Your task to perform on an android device: change timer sound Image 0: 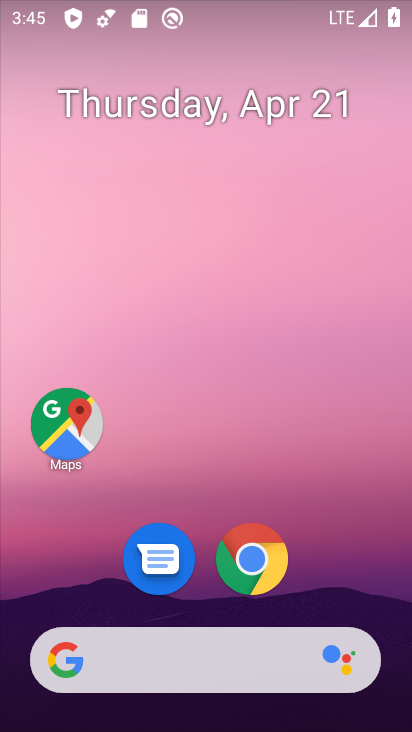
Step 0: drag from (199, 624) to (240, 181)
Your task to perform on an android device: change timer sound Image 1: 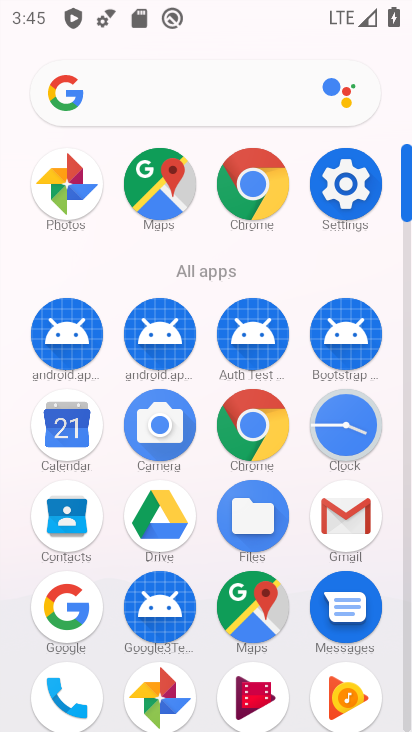
Step 1: click (376, 456)
Your task to perform on an android device: change timer sound Image 2: 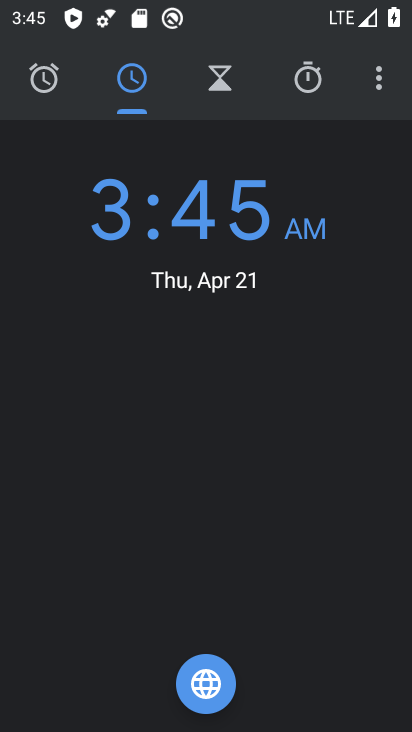
Step 2: click (381, 85)
Your task to perform on an android device: change timer sound Image 3: 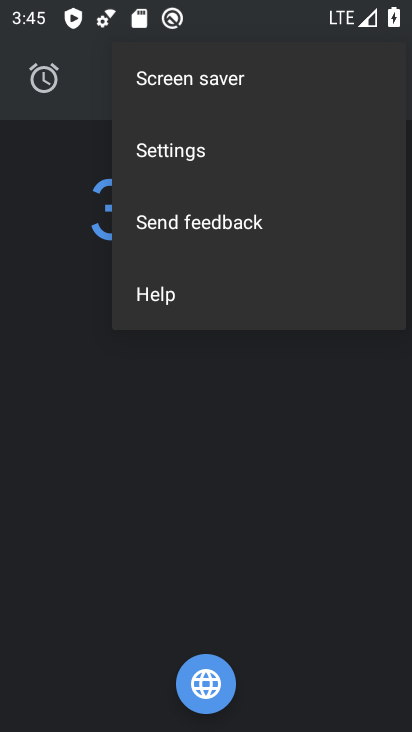
Step 3: click (189, 137)
Your task to perform on an android device: change timer sound Image 4: 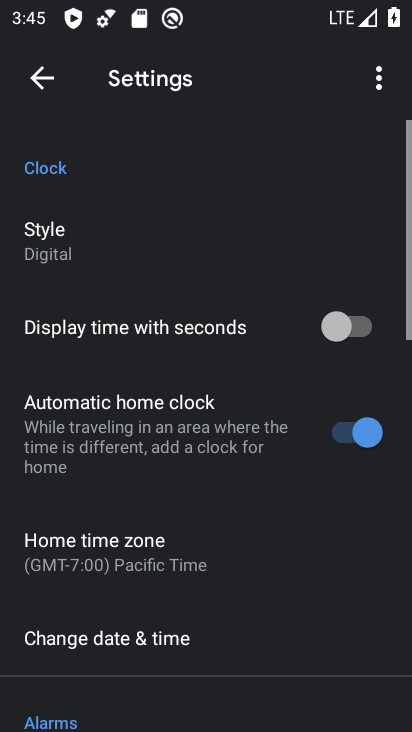
Step 4: drag from (145, 633) to (210, 145)
Your task to perform on an android device: change timer sound Image 5: 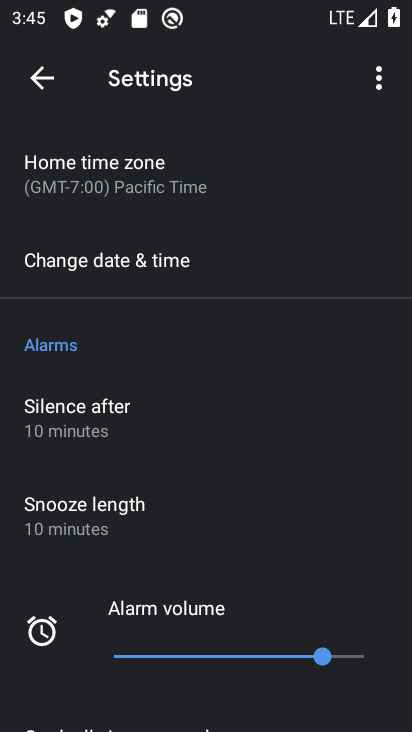
Step 5: drag from (146, 663) to (128, 352)
Your task to perform on an android device: change timer sound Image 6: 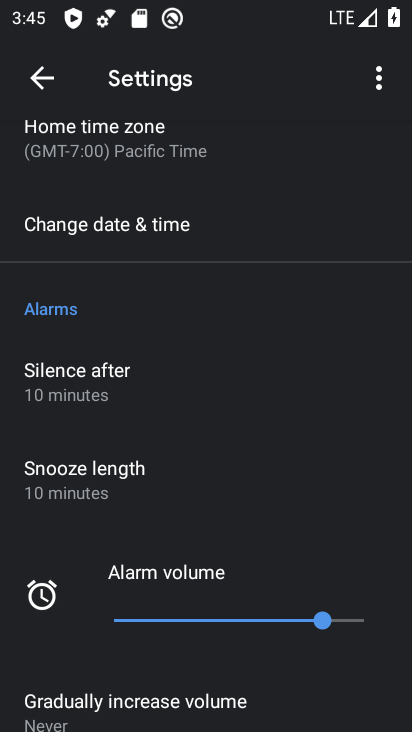
Step 6: drag from (62, 701) to (90, 358)
Your task to perform on an android device: change timer sound Image 7: 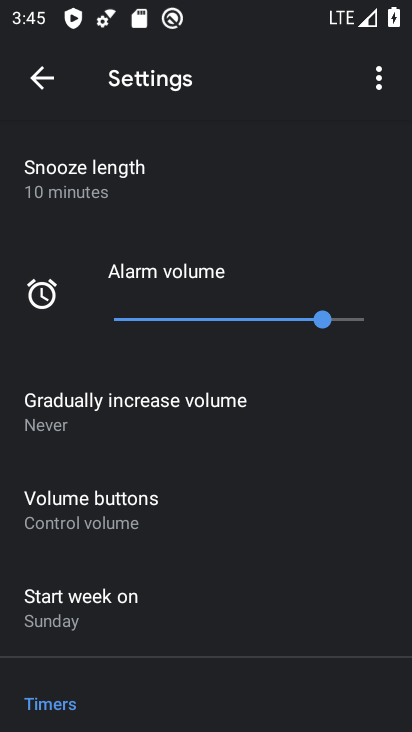
Step 7: drag from (71, 613) to (115, 226)
Your task to perform on an android device: change timer sound Image 8: 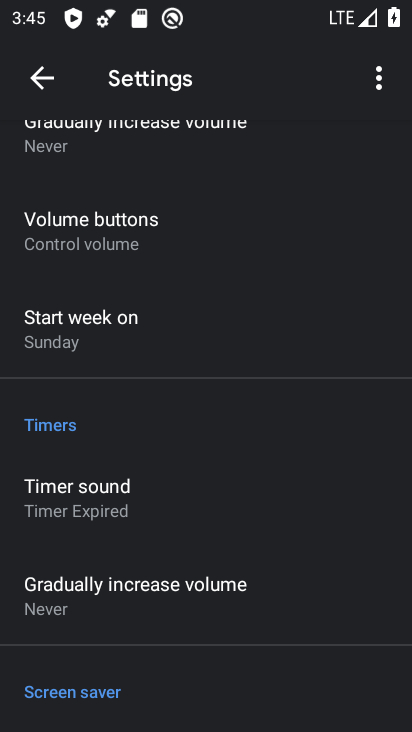
Step 8: click (100, 509)
Your task to perform on an android device: change timer sound Image 9: 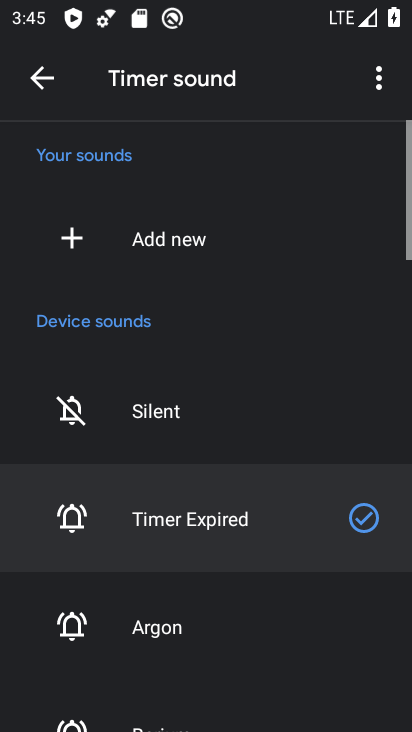
Step 9: click (132, 630)
Your task to perform on an android device: change timer sound Image 10: 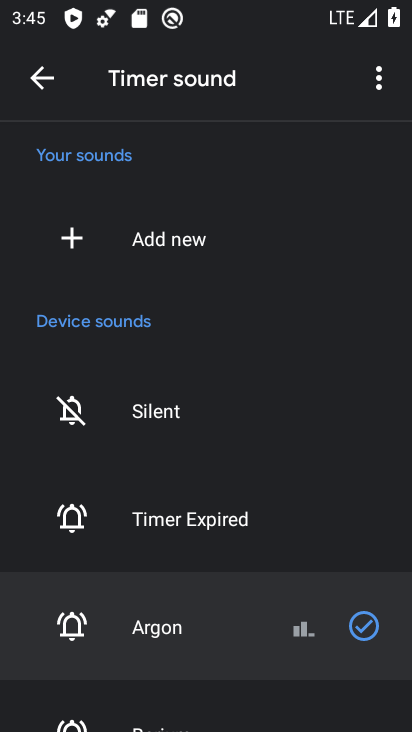
Step 10: task complete